Your task to perform on an android device: Open Maps and search for coffee Image 0: 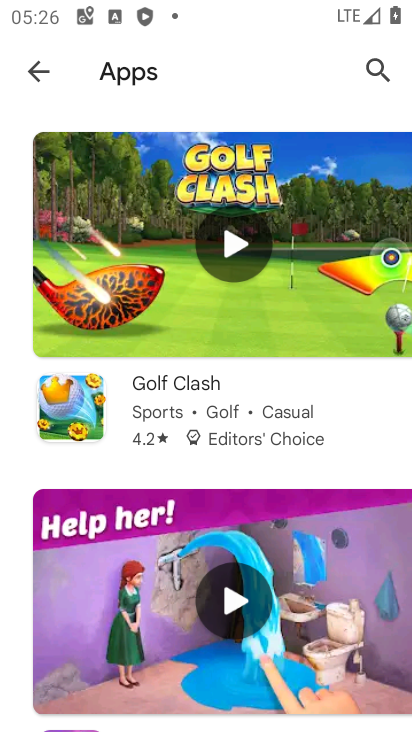
Step 0: press home button
Your task to perform on an android device: Open Maps and search for coffee Image 1: 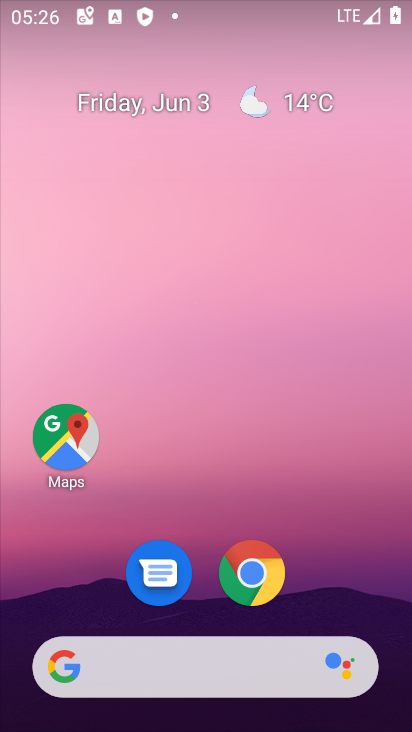
Step 1: drag from (351, 613) to (327, 195)
Your task to perform on an android device: Open Maps and search for coffee Image 2: 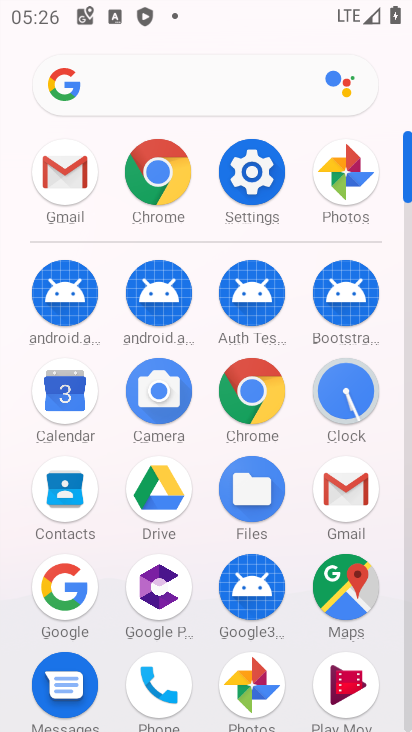
Step 2: click (337, 598)
Your task to perform on an android device: Open Maps and search for coffee Image 3: 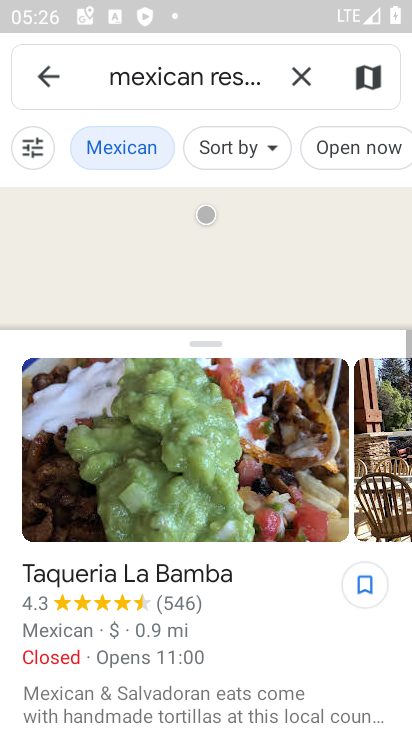
Step 3: click (302, 65)
Your task to perform on an android device: Open Maps and search for coffee Image 4: 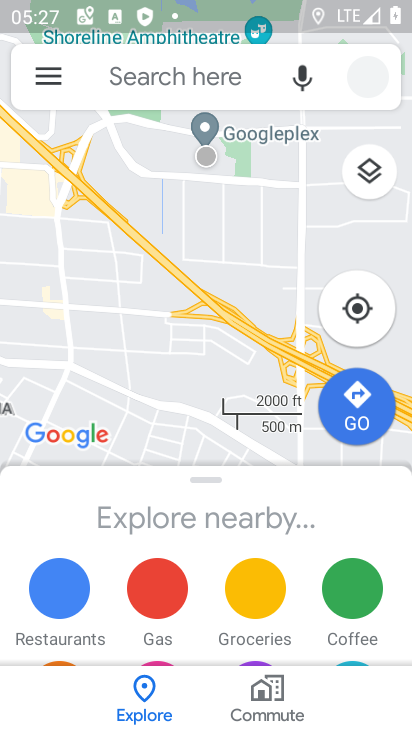
Step 4: click (214, 81)
Your task to perform on an android device: Open Maps and search for coffee Image 5: 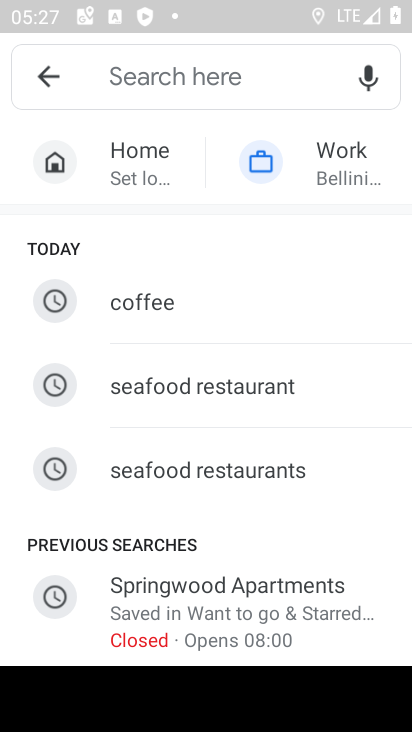
Step 5: type "coffee"
Your task to perform on an android device: Open Maps and search for coffee Image 6: 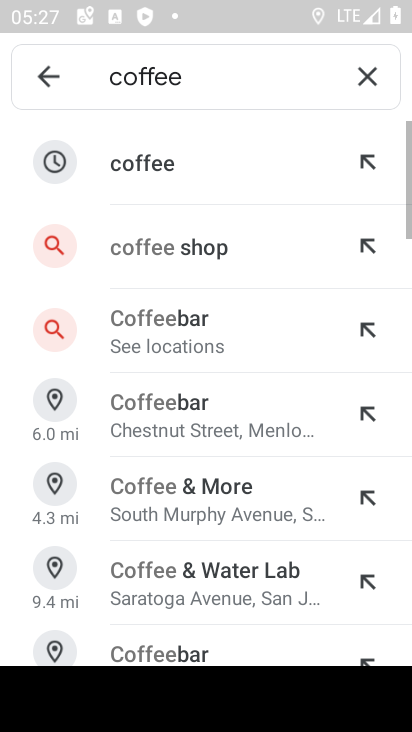
Step 6: click (159, 151)
Your task to perform on an android device: Open Maps and search for coffee Image 7: 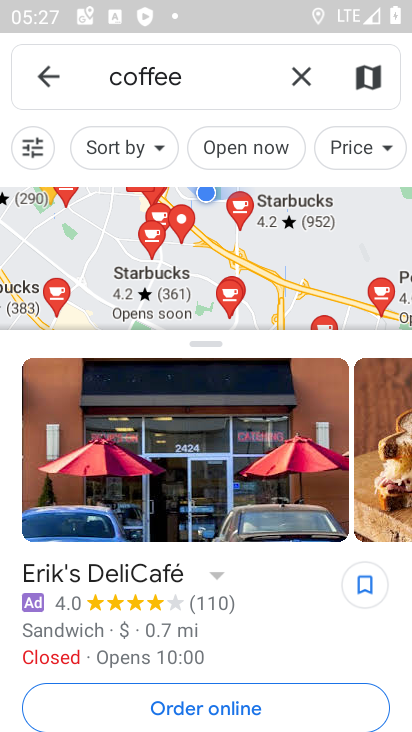
Step 7: task complete